Your task to perform on an android device: delete location history Image 0: 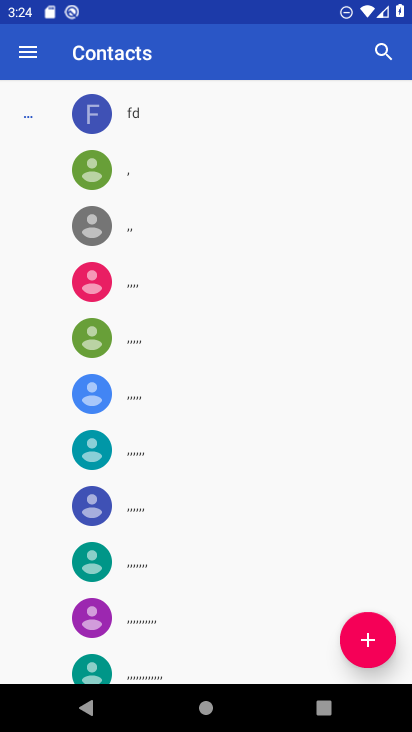
Step 0: press home button
Your task to perform on an android device: delete location history Image 1: 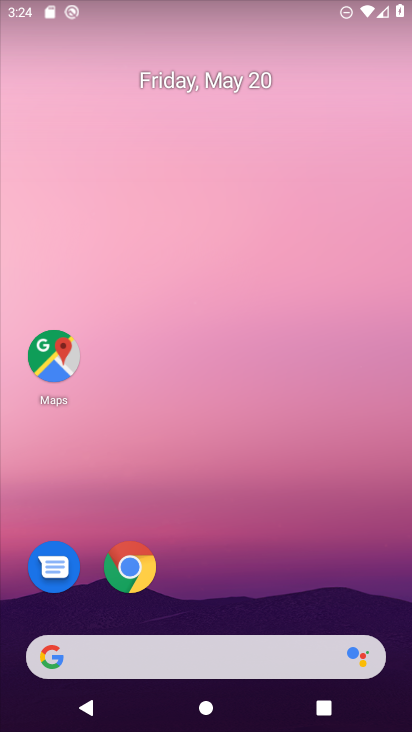
Step 1: drag from (230, 722) to (227, 111)
Your task to perform on an android device: delete location history Image 2: 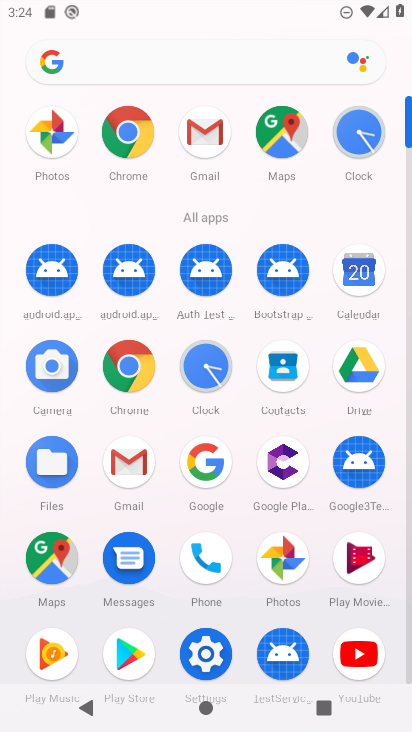
Step 2: click (50, 570)
Your task to perform on an android device: delete location history Image 3: 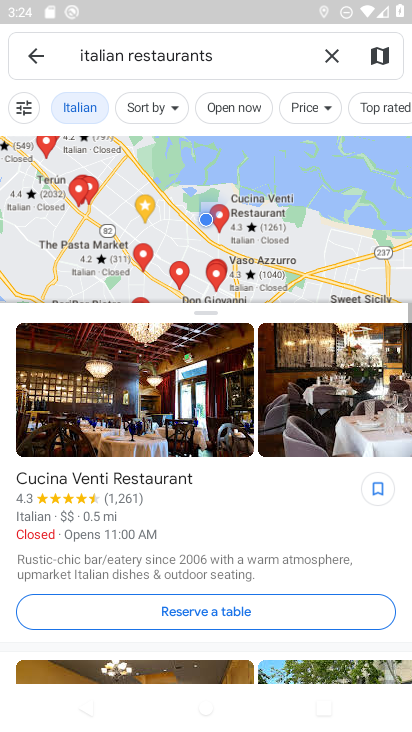
Step 3: click (37, 58)
Your task to perform on an android device: delete location history Image 4: 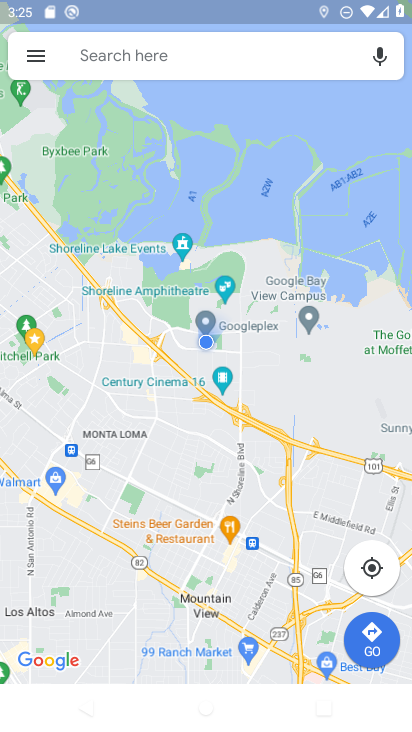
Step 4: click (32, 58)
Your task to perform on an android device: delete location history Image 5: 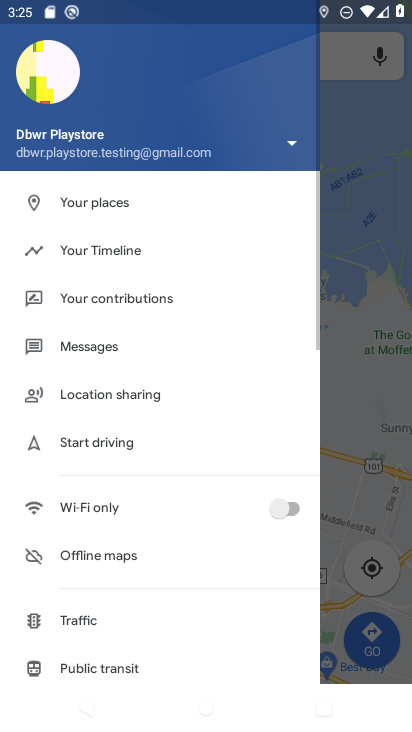
Step 5: click (101, 251)
Your task to perform on an android device: delete location history Image 6: 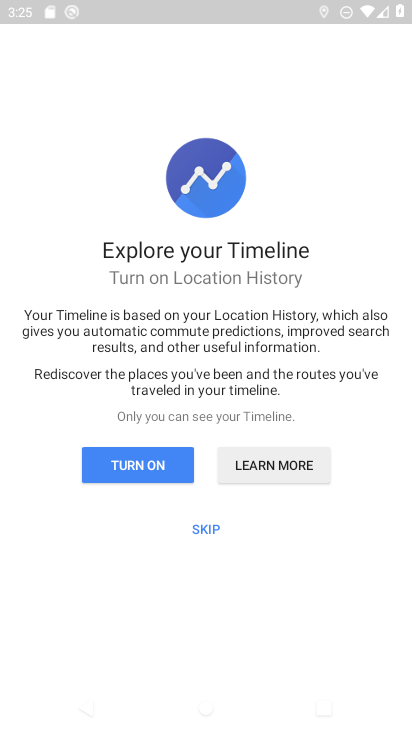
Step 6: click (206, 525)
Your task to perform on an android device: delete location history Image 7: 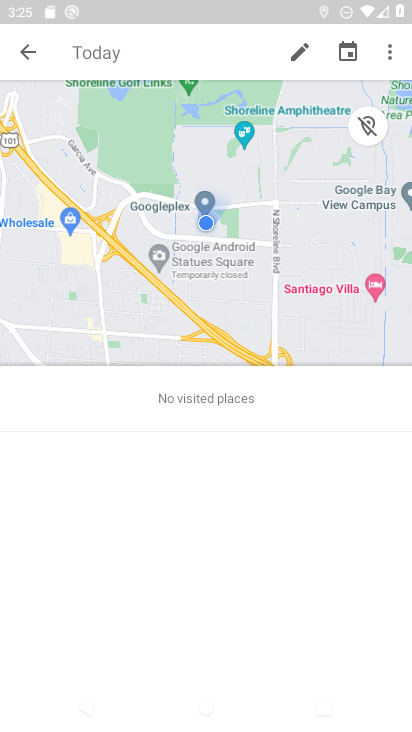
Step 7: click (388, 57)
Your task to perform on an android device: delete location history Image 8: 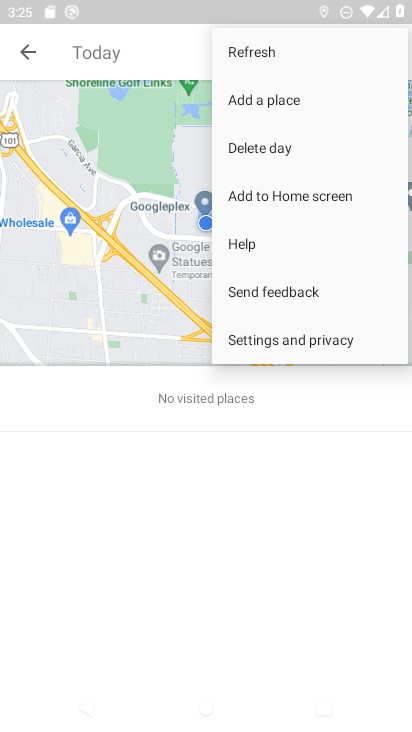
Step 8: click (250, 334)
Your task to perform on an android device: delete location history Image 9: 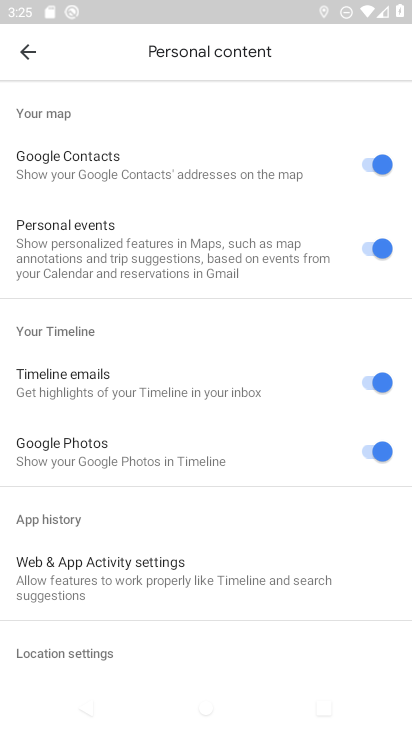
Step 9: drag from (196, 643) to (194, 128)
Your task to perform on an android device: delete location history Image 10: 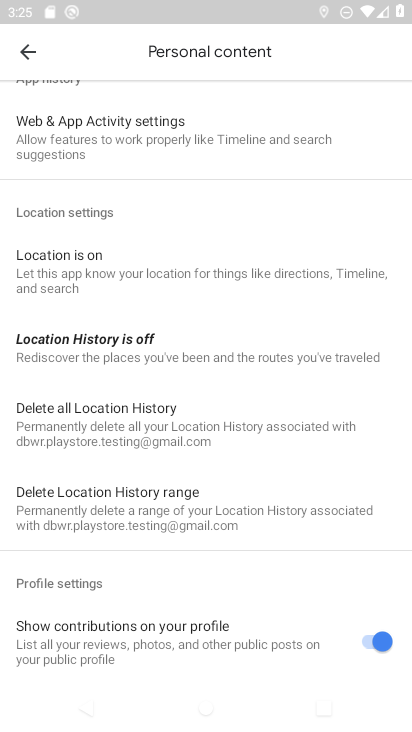
Step 10: drag from (161, 641) to (160, 270)
Your task to perform on an android device: delete location history Image 11: 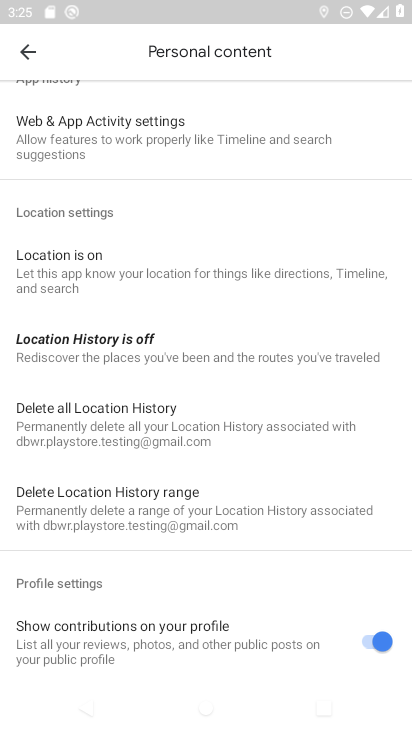
Step 11: drag from (163, 588) to (164, 264)
Your task to perform on an android device: delete location history Image 12: 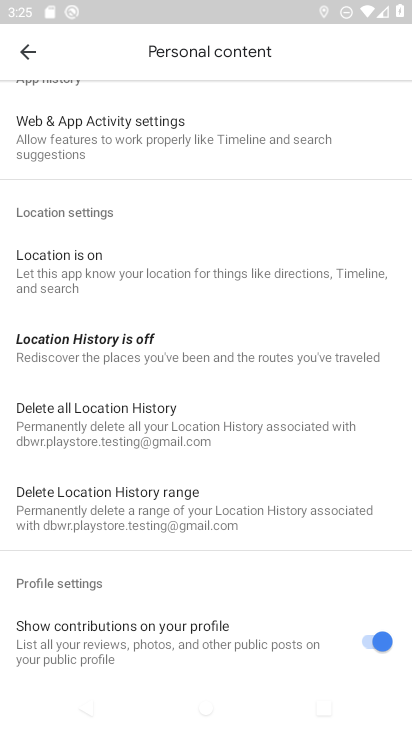
Step 12: click (77, 417)
Your task to perform on an android device: delete location history Image 13: 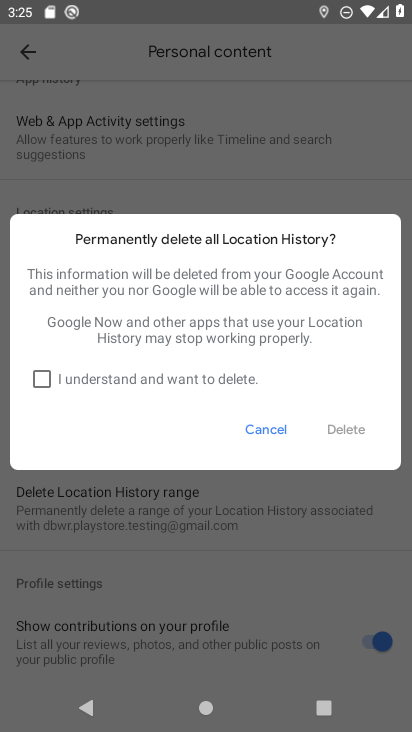
Step 13: click (43, 375)
Your task to perform on an android device: delete location history Image 14: 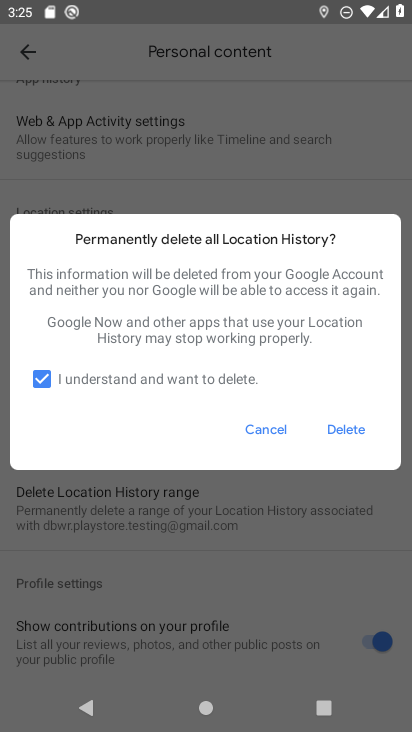
Step 14: click (344, 426)
Your task to perform on an android device: delete location history Image 15: 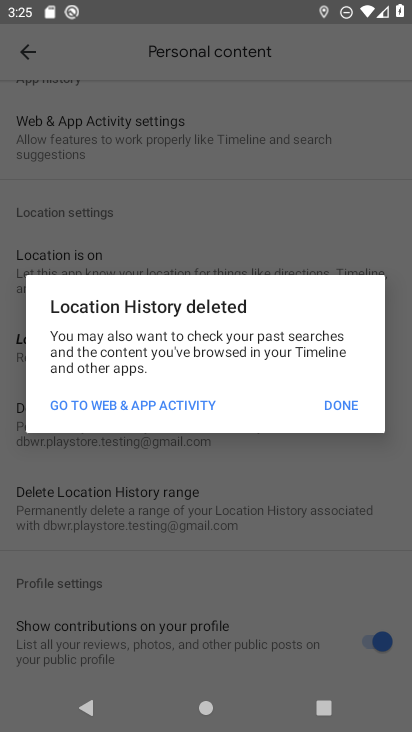
Step 15: click (341, 402)
Your task to perform on an android device: delete location history Image 16: 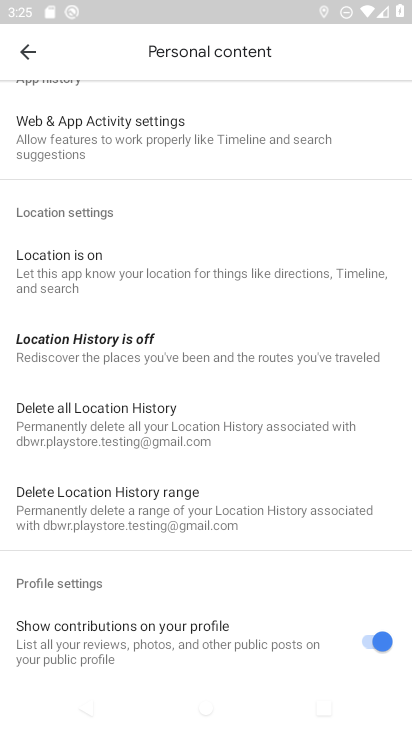
Step 16: task complete